Your task to perform on an android device: change the clock style Image 0: 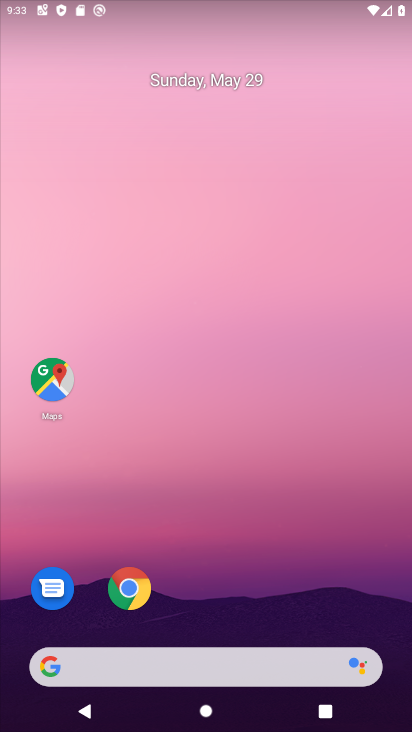
Step 0: drag from (22, 697) to (275, 200)
Your task to perform on an android device: change the clock style Image 1: 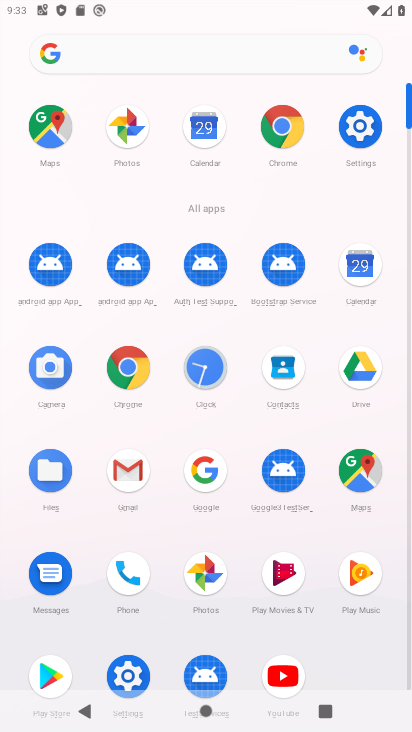
Step 1: click (216, 361)
Your task to perform on an android device: change the clock style Image 2: 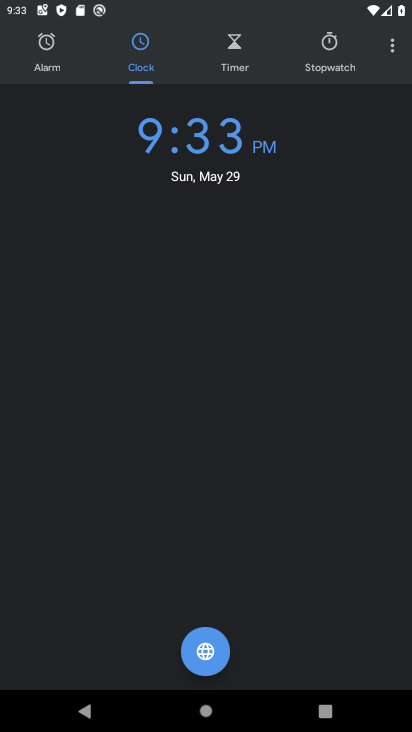
Step 2: click (389, 53)
Your task to perform on an android device: change the clock style Image 3: 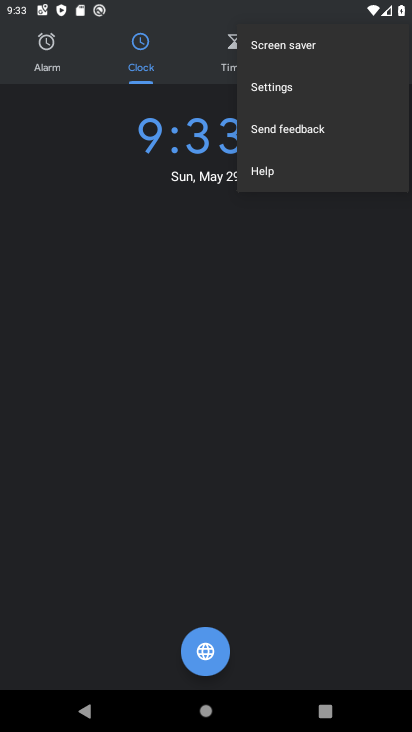
Step 3: click (293, 88)
Your task to perform on an android device: change the clock style Image 4: 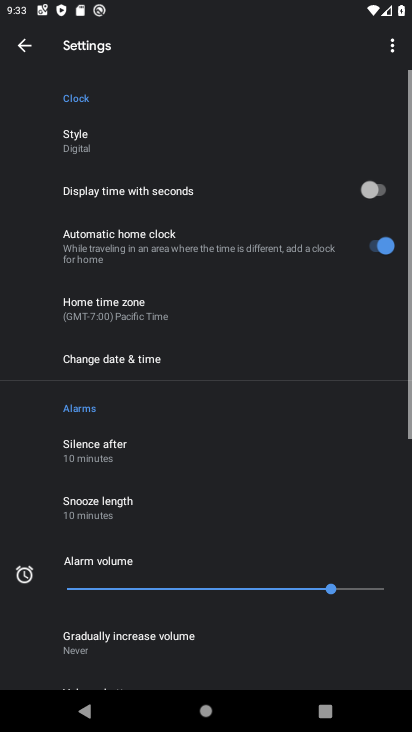
Step 4: click (113, 137)
Your task to perform on an android device: change the clock style Image 5: 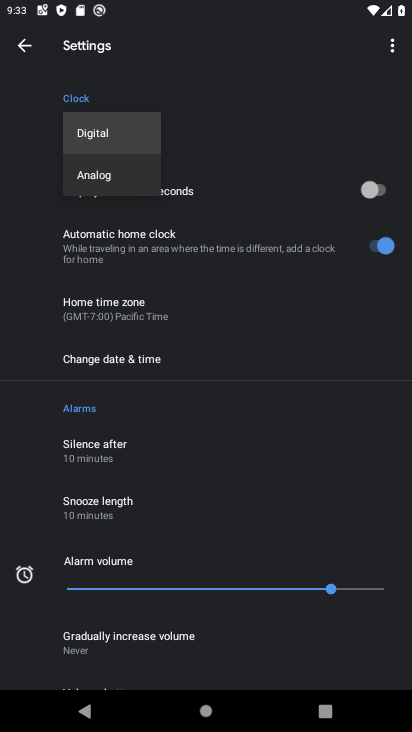
Step 5: click (109, 182)
Your task to perform on an android device: change the clock style Image 6: 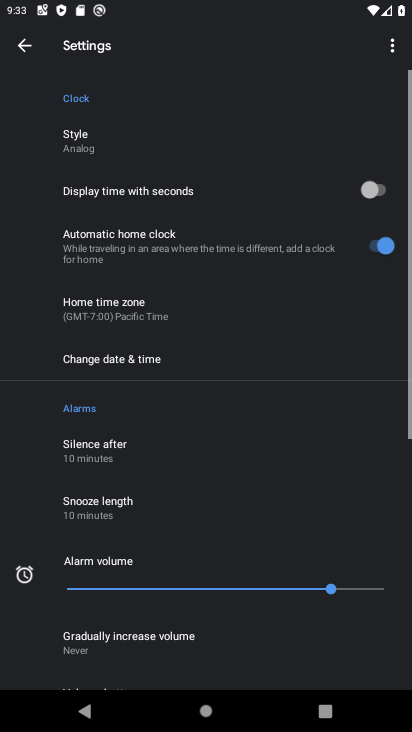
Step 6: task complete